Your task to perform on an android device: turn on data saver in the chrome app Image 0: 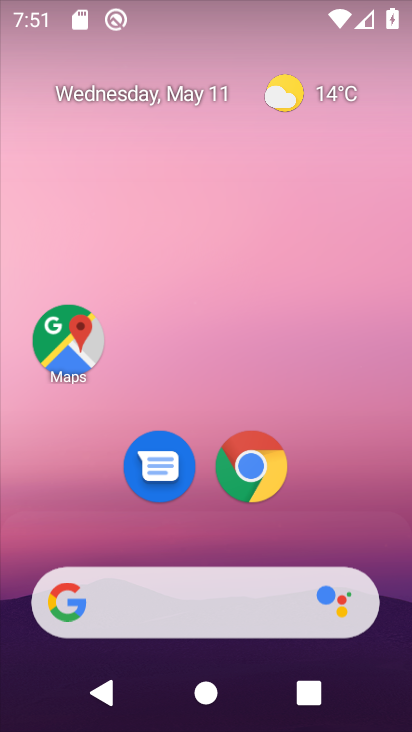
Step 0: click (232, 475)
Your task to perform on an android device: turn on data saver in the chrome app Image 1: 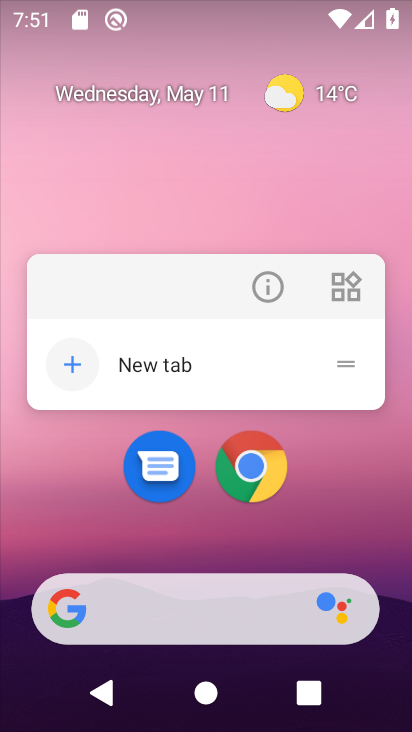
Step 1: click (244, 471)
Your task to perform on an android device: turn on data saver in the chrome app Image 2: 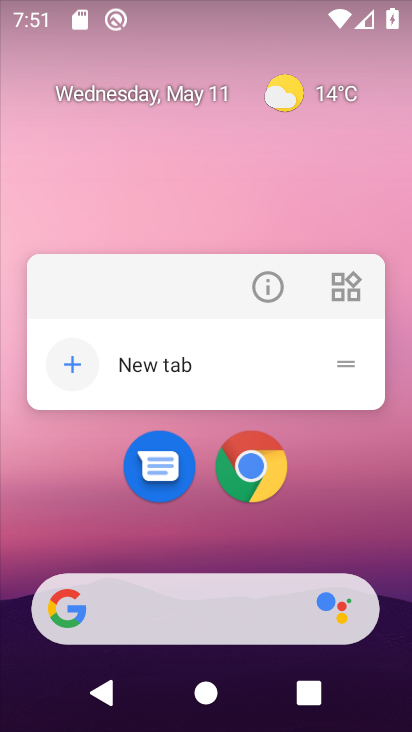
Step 2: click (254, 473)
Your task to perform on an android device: turn on data saver in the chrome app Image 3: 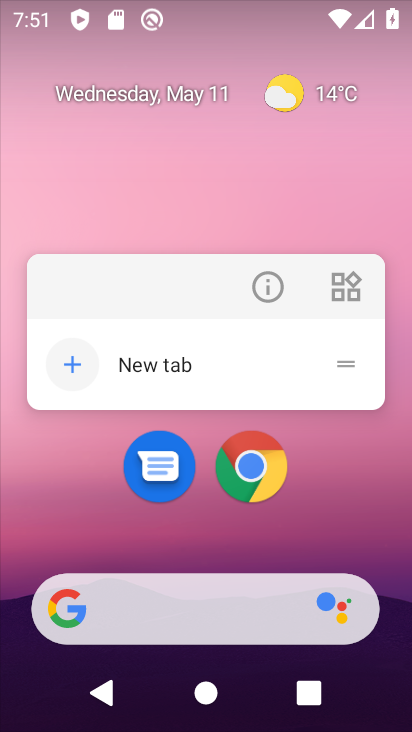
Step 3: click (265, 502)
Your task to perform on an android device: turn on data saver in the chrome app Image 4: 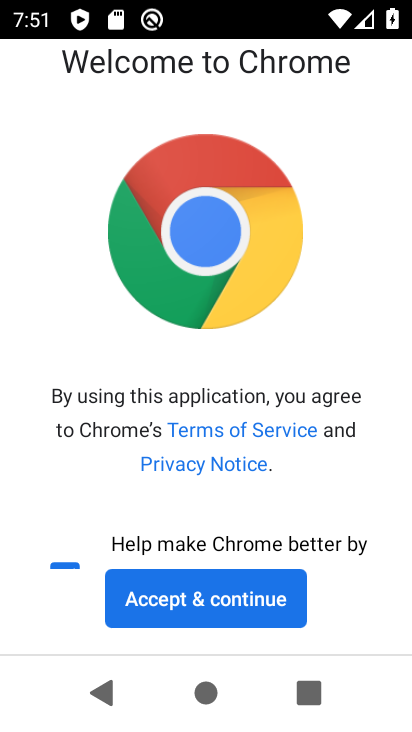
Step 4: click (203, 602)
Your task to perform on an android device: turn on data saver in the chrome app Image 5: 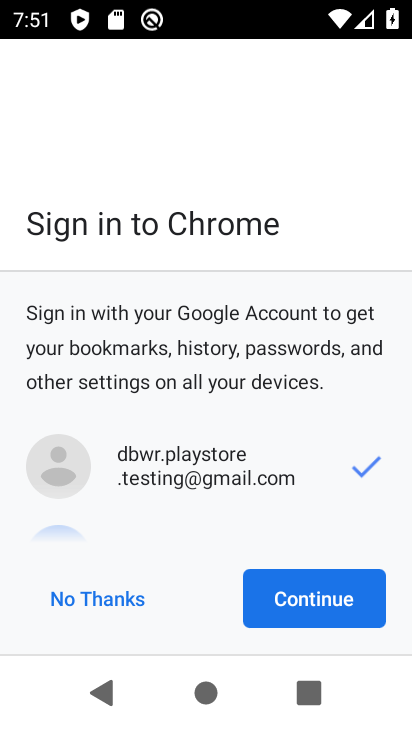
Step 5: click (315, 600)
Your task to perform on an android device: turn on data saver in the chrome app Image 6: 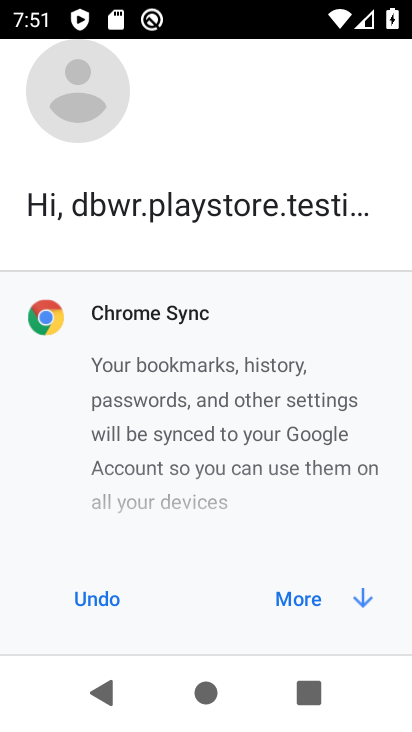
Step 6: click (315, 600)
Your task to perform on an android device: turn on data saver in the chrome app Image 7: 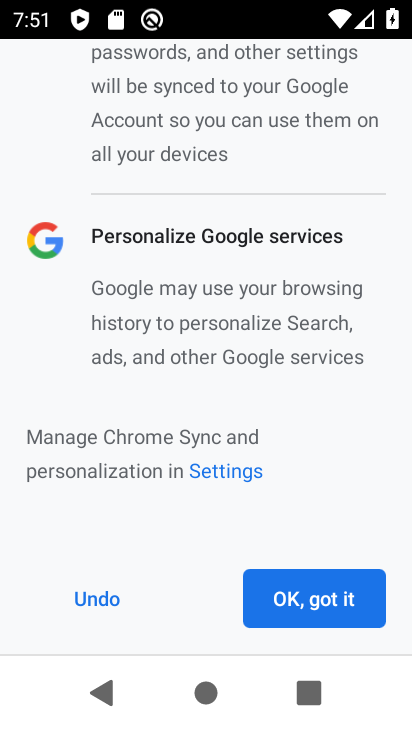
Step 7: click (315, 600)
Your task to perform on an android device: turn on data saver in the chrome app Image 8: 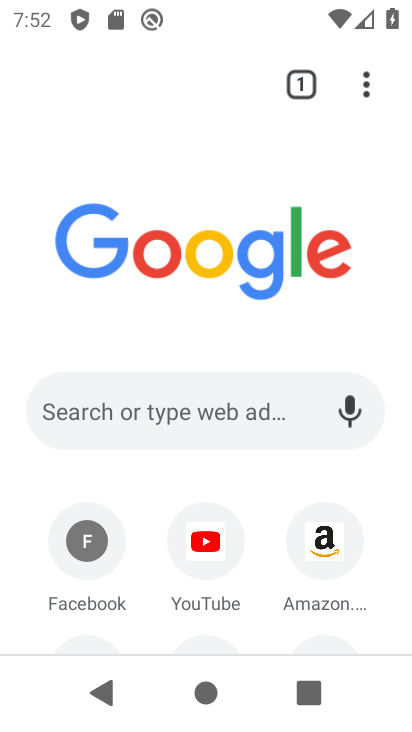
Step 8: drag from (368, 96) to (200, 547)
Your task to perform on an android device: turn on data saver in the chrome app Image 9: 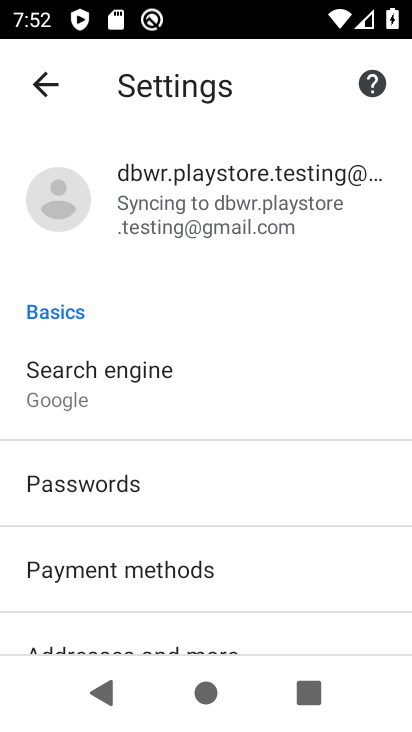
Step 9: drag from (159, 615) to (262, 274)
Your task to perform on an android device: turn on data saver in the chrome app Image 10: 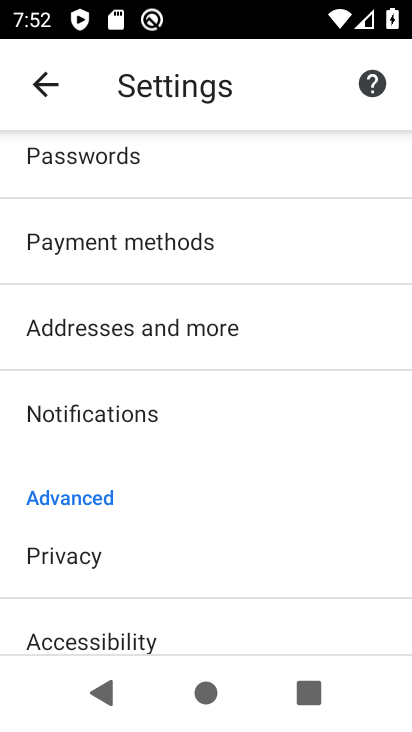
Step 10: drag from (130, 648) to (259, 249)
Your task to perform on an android device: turn on data saver in the chrome app Image 11: 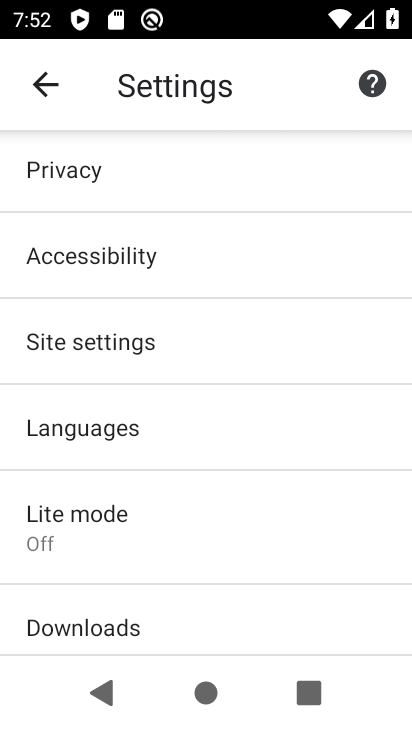
Step 11: click (143, 529)
Your task to perform on an android device: turn on data saver in the chrome app Image 12: 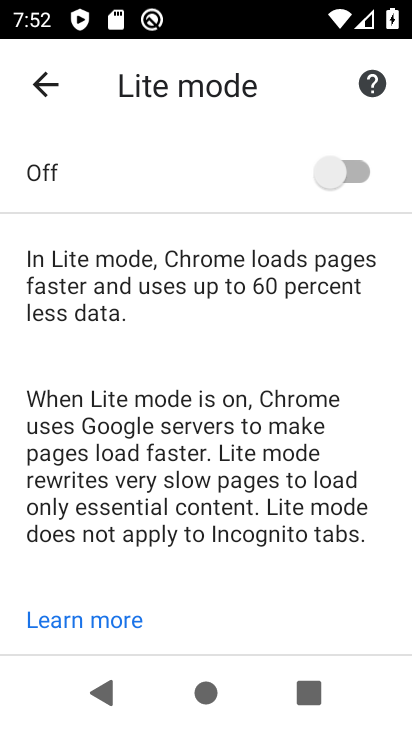
Step 12: click (372, 163)
Your task to perform on an android device: turn on data saver in the chrome app Image 13: 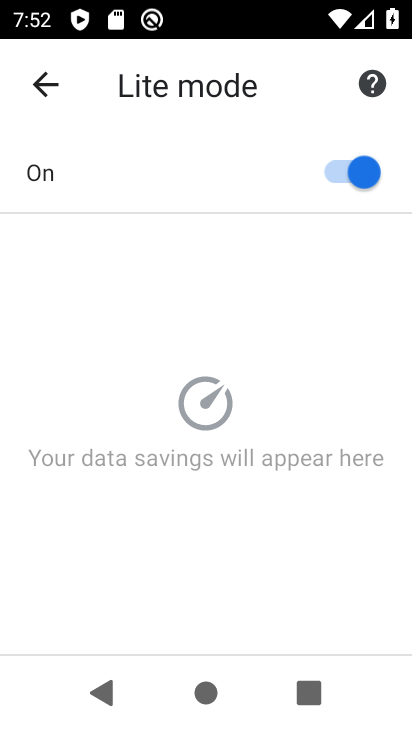
Step 13: task complete